Your task to perform on an android device: install app "Spotify: Music and Podcasts" Image 0: 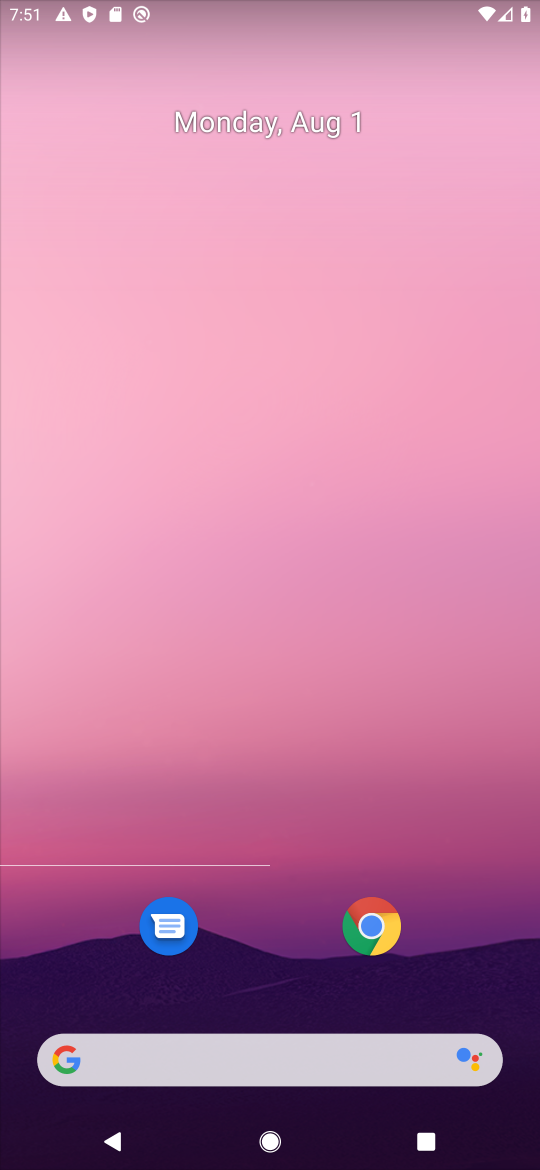
Step 0: press home button
Your task to perform on an android device: install app "Spotify: Music and Podcasts" Image 1: 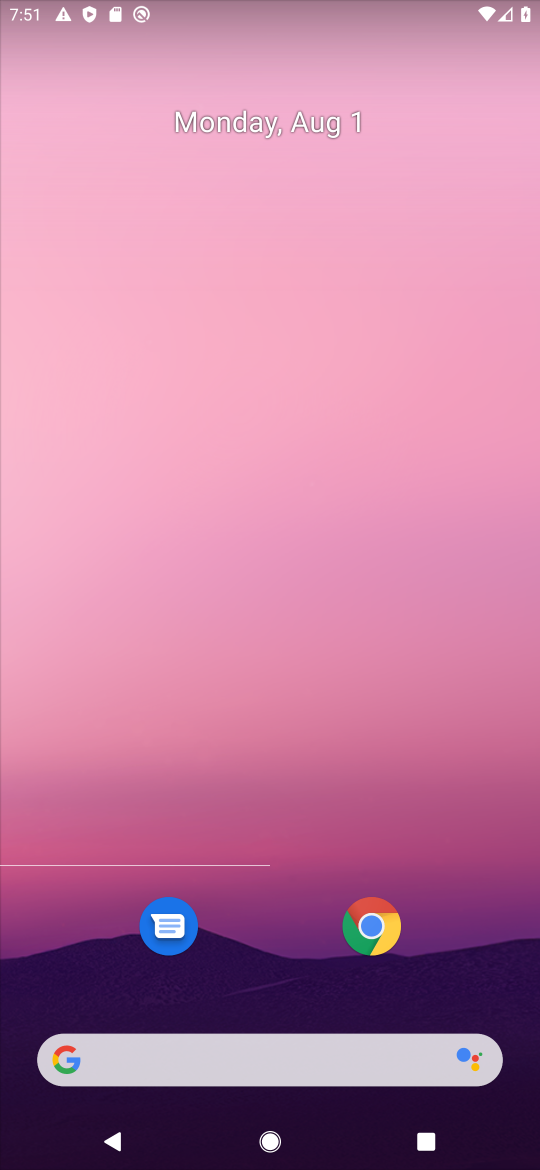
Step 1: click (427, 66)
Your task to perform on an android device: install app "Spotify: Music and Podcasts" Image 2: 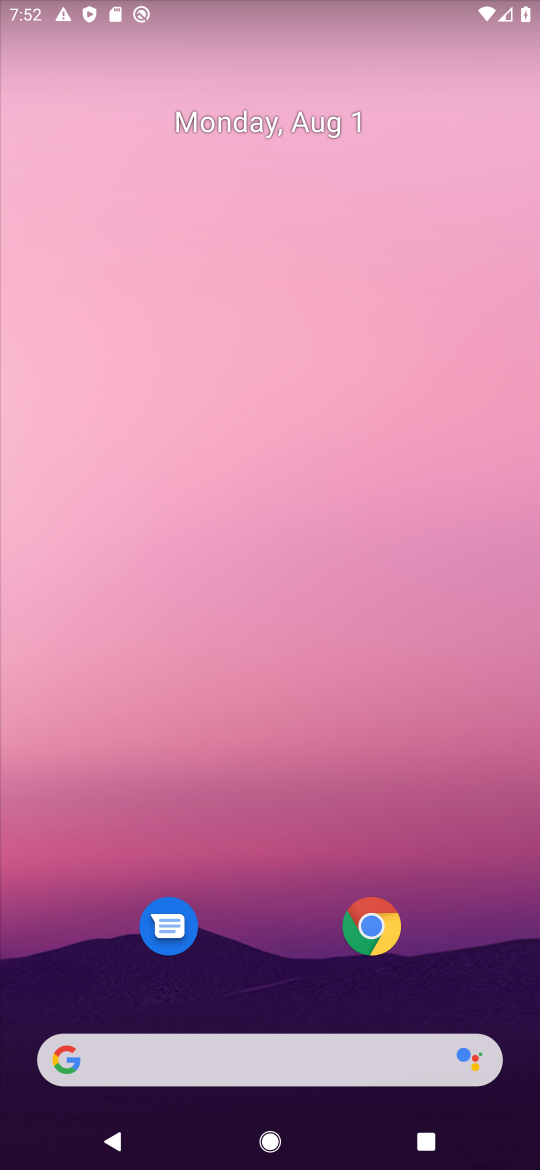
Step 2: drag from (270, 998) to (290, 114)
Your task to perform on an android device: install app "Spotify: Music and Podcasts" Image 3: 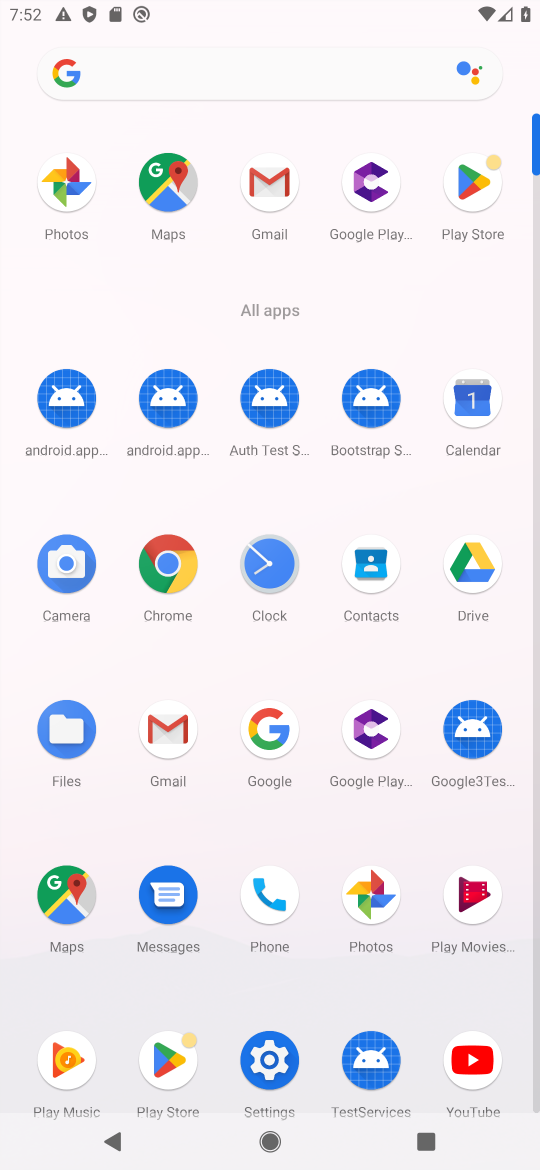
Step 3: click (467, 179)
Your task to perform on an android device: install app "Spotify: Music and Podcasts" Image 4: 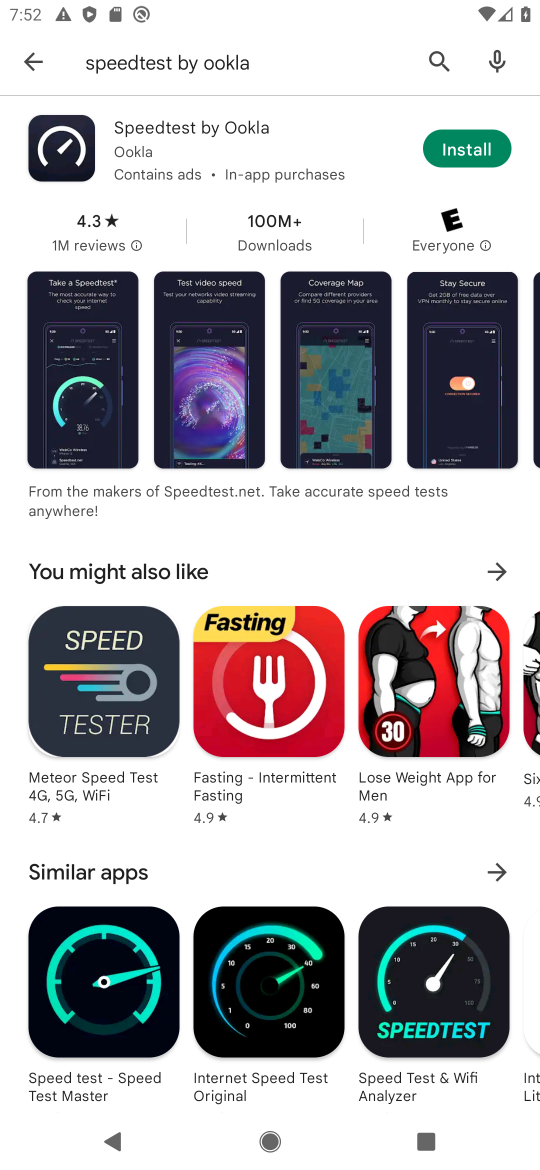
Step 4: click (434, 59)
Your task to perform on an android device: install app "Spotify: Music and Podcasts" Image 5: 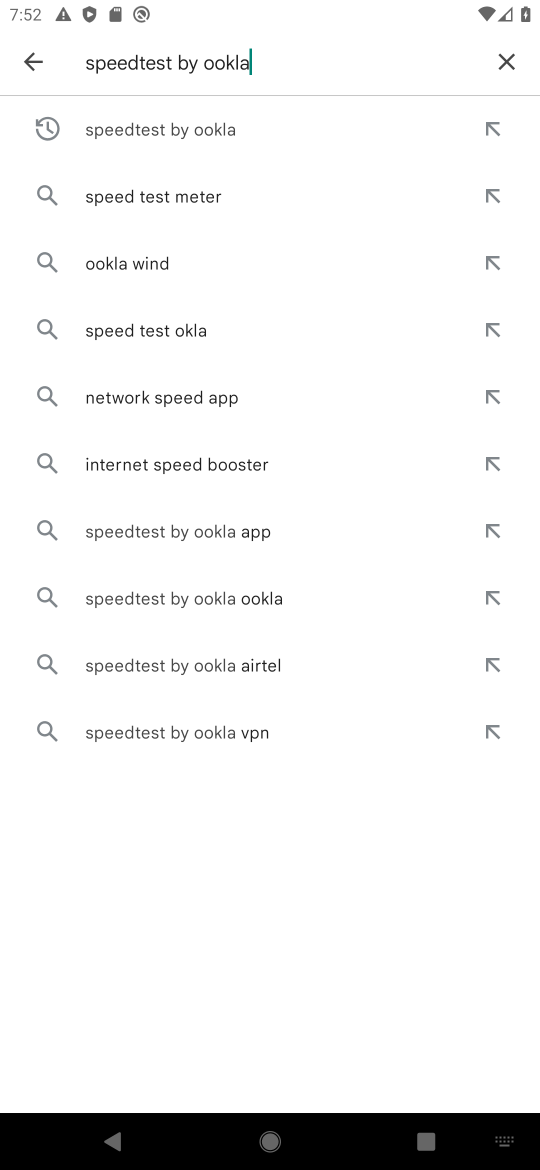
Step 5: click (525, 54)
Your task to perform on an android device: install app "Spotify: Music and Podcasts" Image 6: 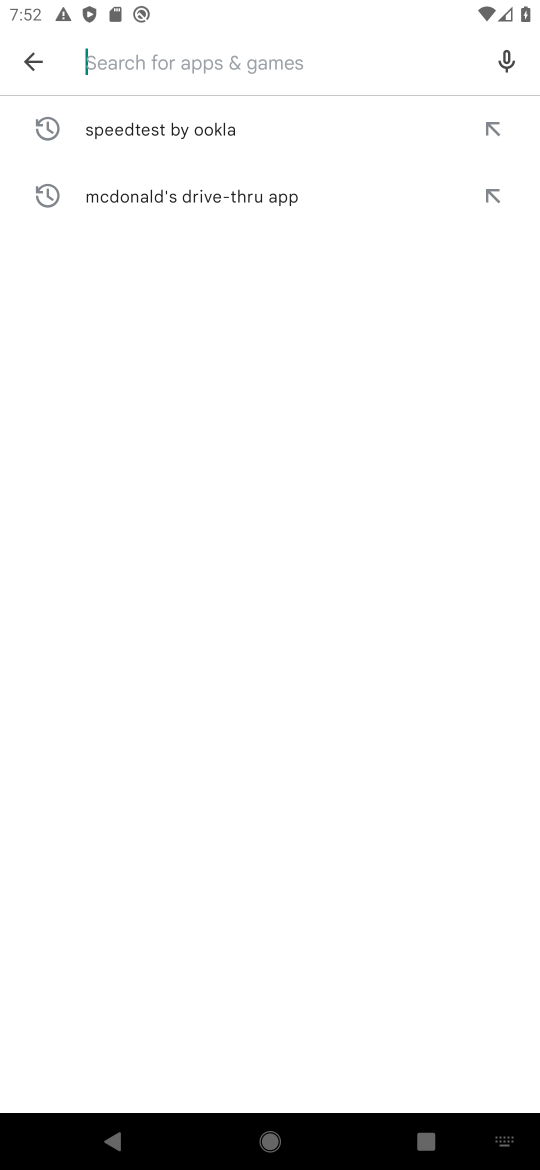
Step 6: click (505, 58)
Your task to perform on an android device: install app "Spotify: Music and Podcasts" Image 7: 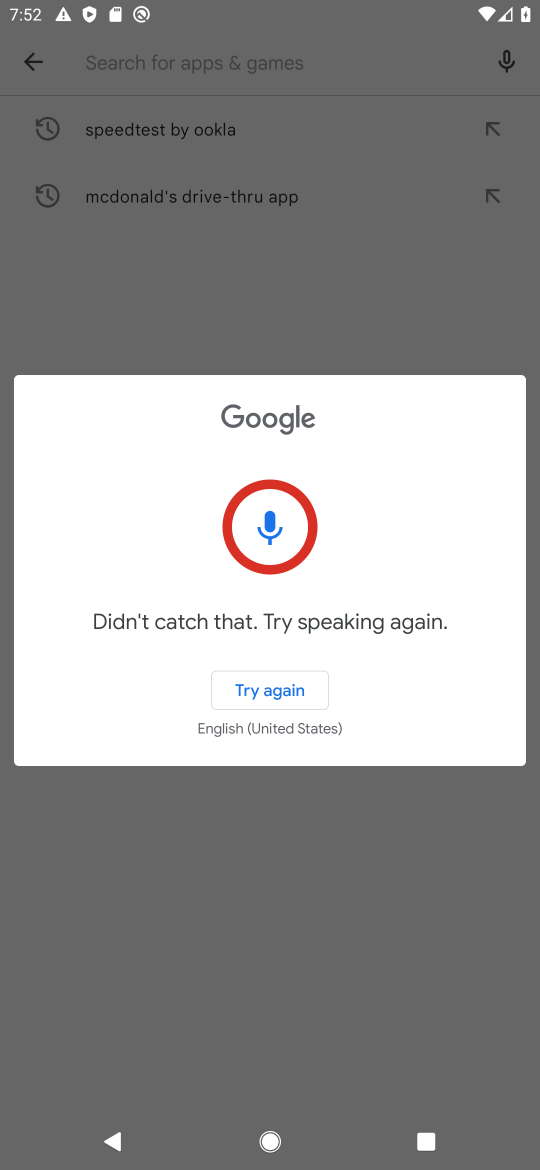
Step 7: click (298, 690)
Your task to perform on an android device: install app "Spotify: Music and Podcasts" Image 8: 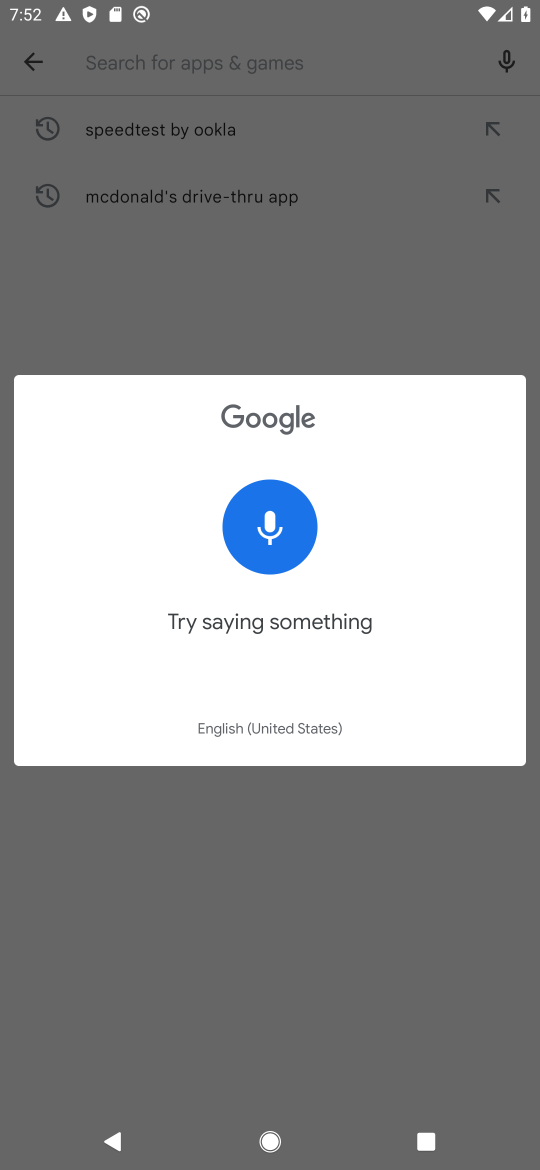
Step 8: click (211, 262)
Your task to perform on an android device: install app "Spotify: Music and Podcasts" Image 9: 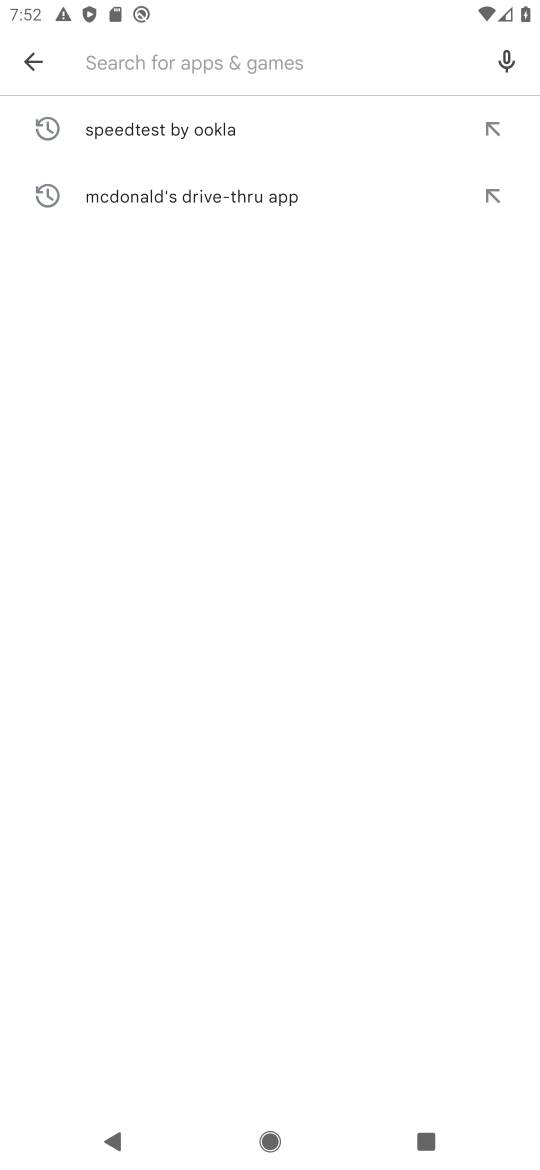
Step 9: click (161, 55)
Your task to perform on an android device: install app "Spotify: Music and Podcasts" Image 10: 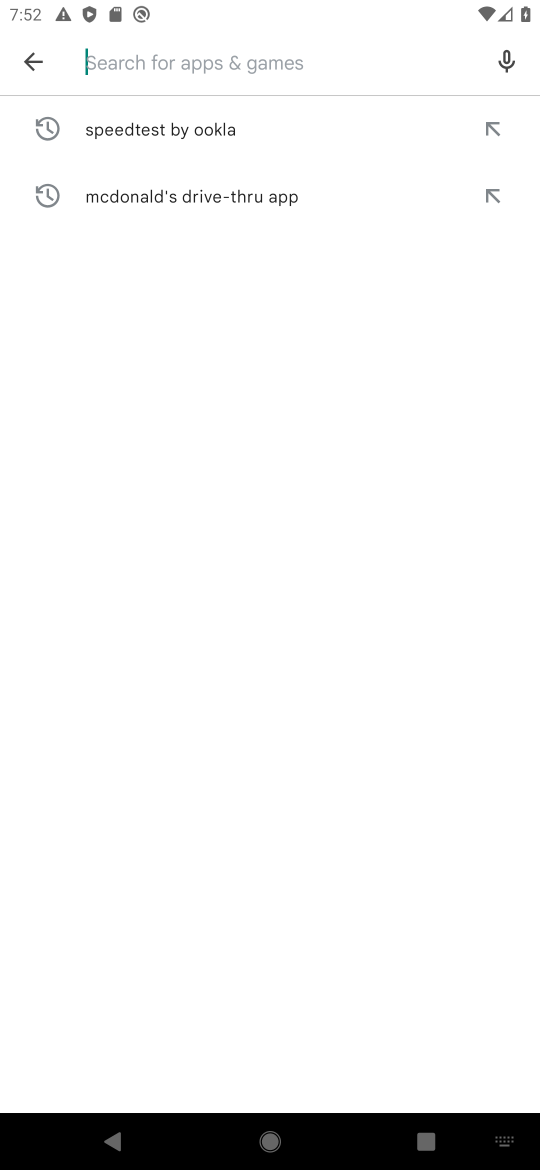
Step 10: click (161, 55)
Your task to perform on an android device: install app "Spotify: Music and Podcasts" Image 11: 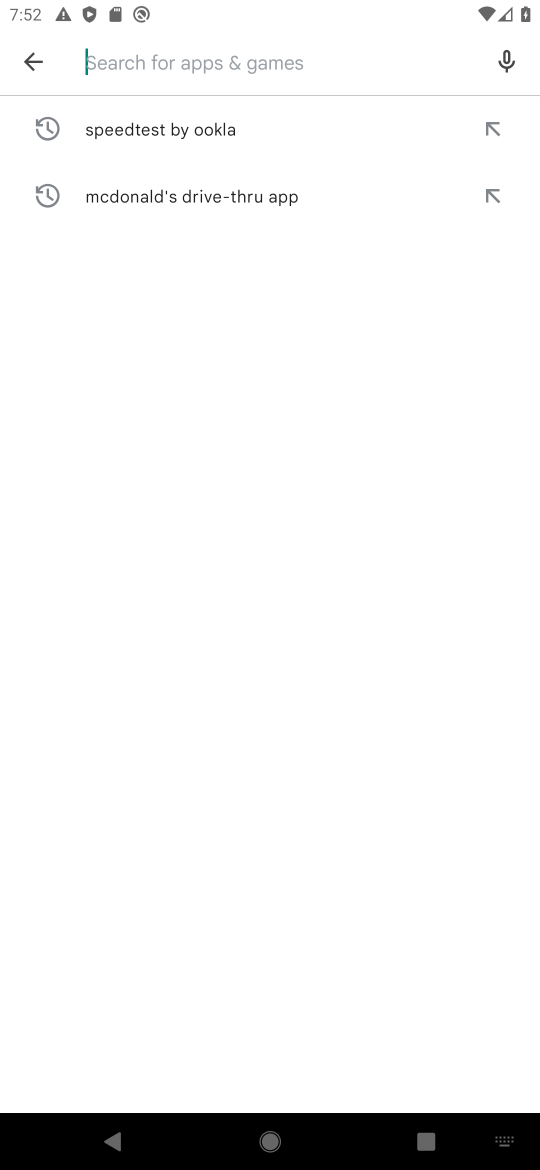
Step 11: type "Spotify: Music and Podcasts"
Your task to perform on an android device: install app "Spotify: Music and Podcasts" Image 12: 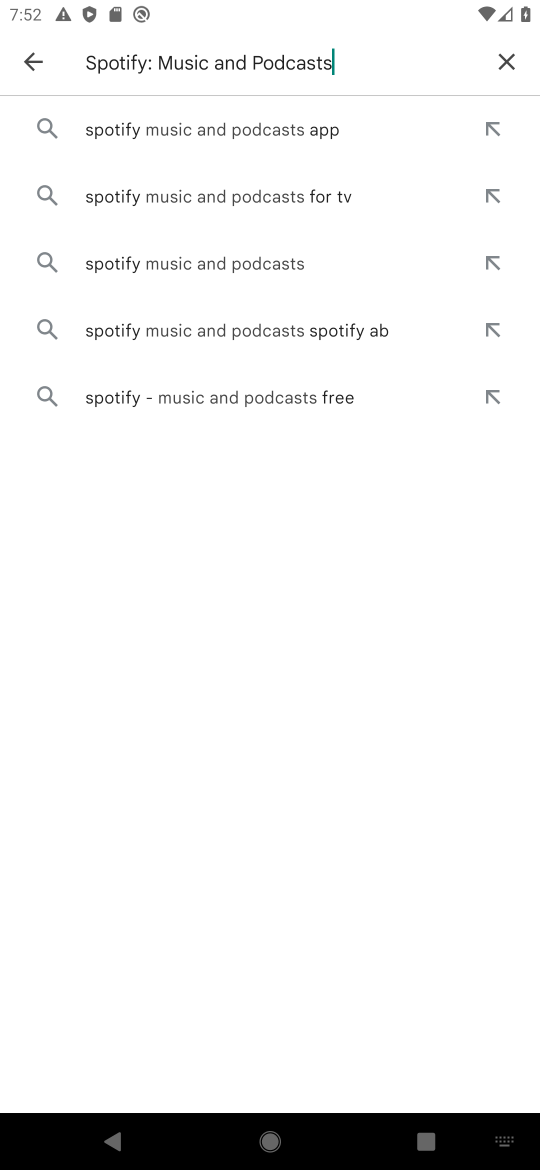
Step 12: click (234, 139)
Your task to perform on an android device: install app "Spotify: Music and Podcasts" Image 13: 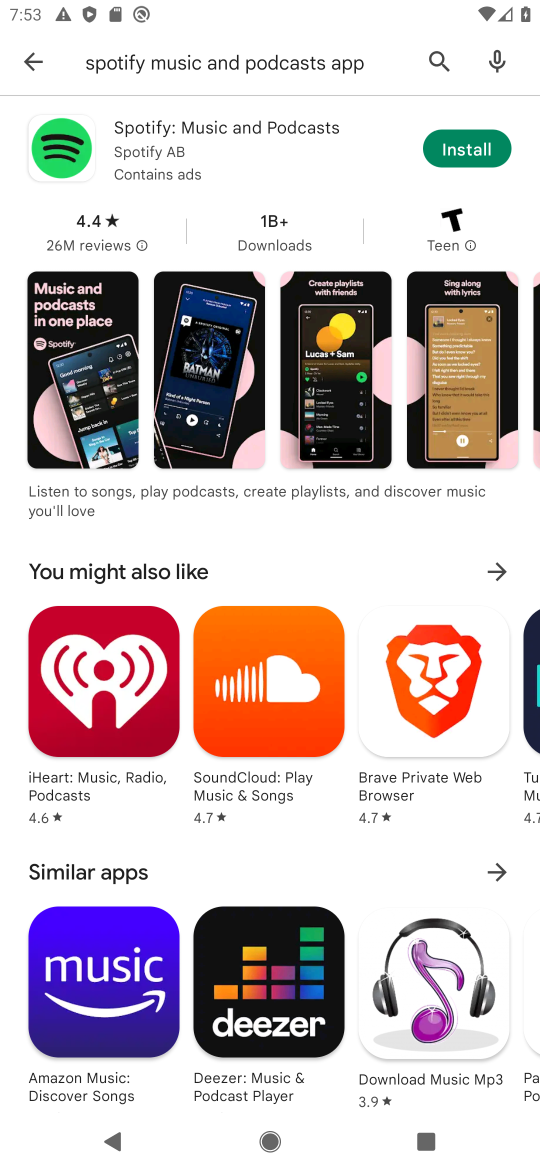
Step 13: click (465, 146)
Your task to perform on an android device: install app "Spotify: Music and Podcasts" Image 14: 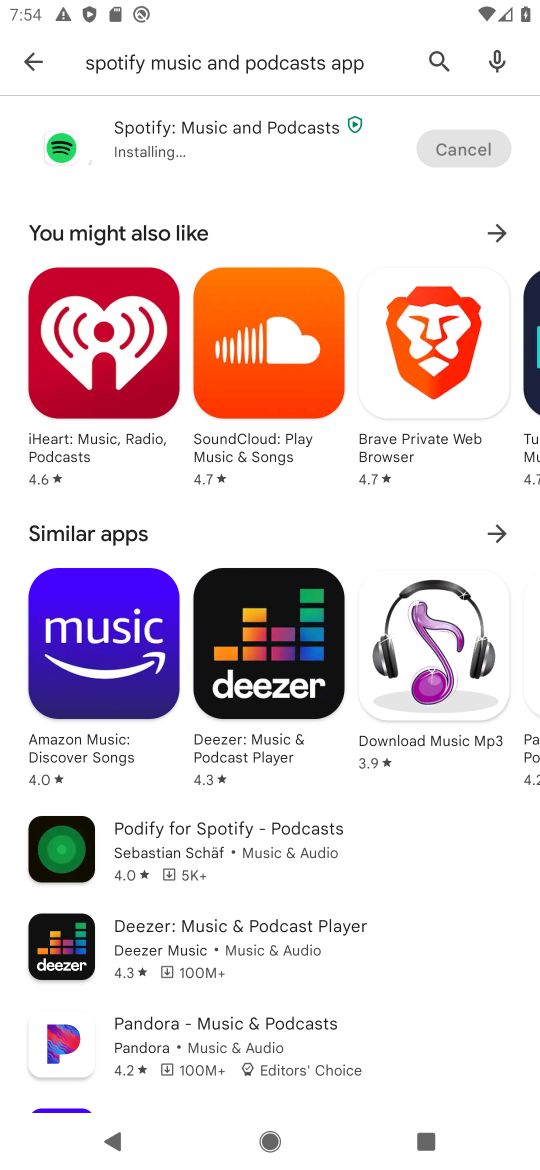
Step 14: click (287, 141)
Your task to perform on an android device: install app "Spotify: Music and Podcasts" Image 15: 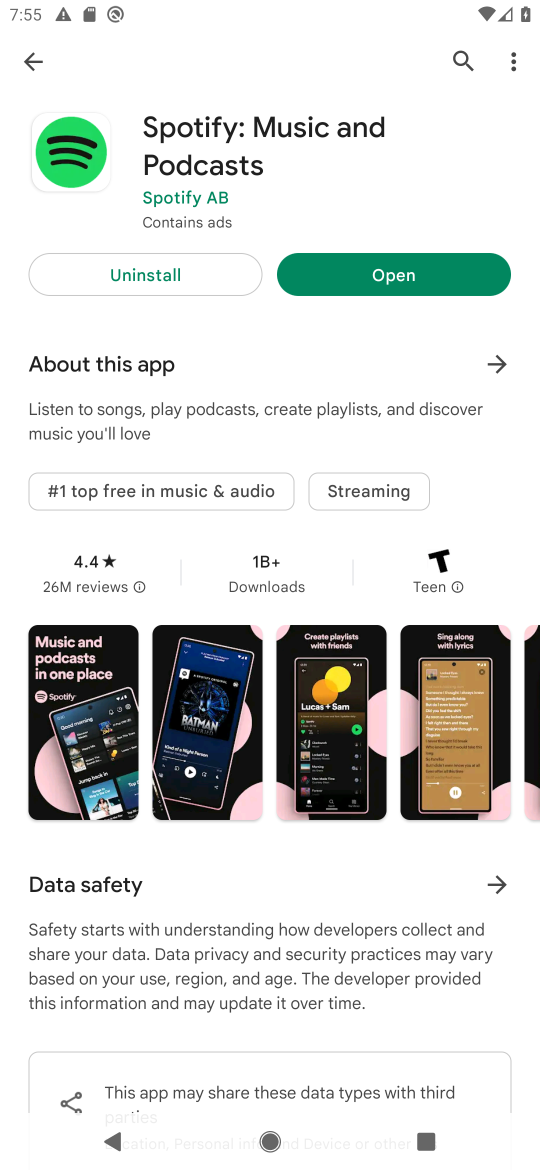
Step 15: click (380, 278)
Your task to perform on an android device: install app "Spotify: Music and Podcasts" Image 16: 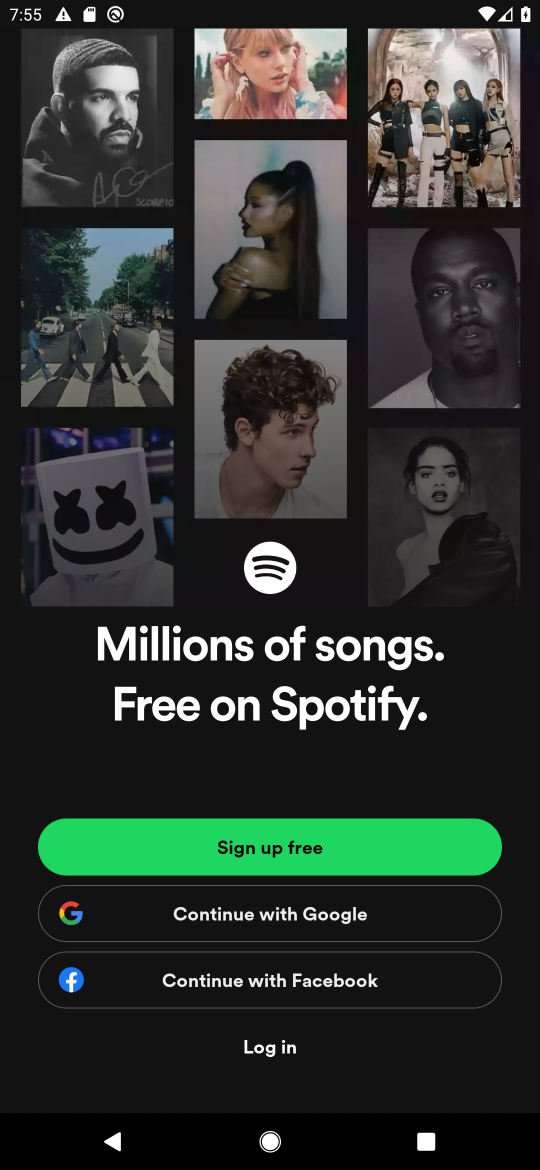
Step 16: click (290, 916)
Your task to perform on an android device: install app "Spotify: Music and Podcasts" Image 17: 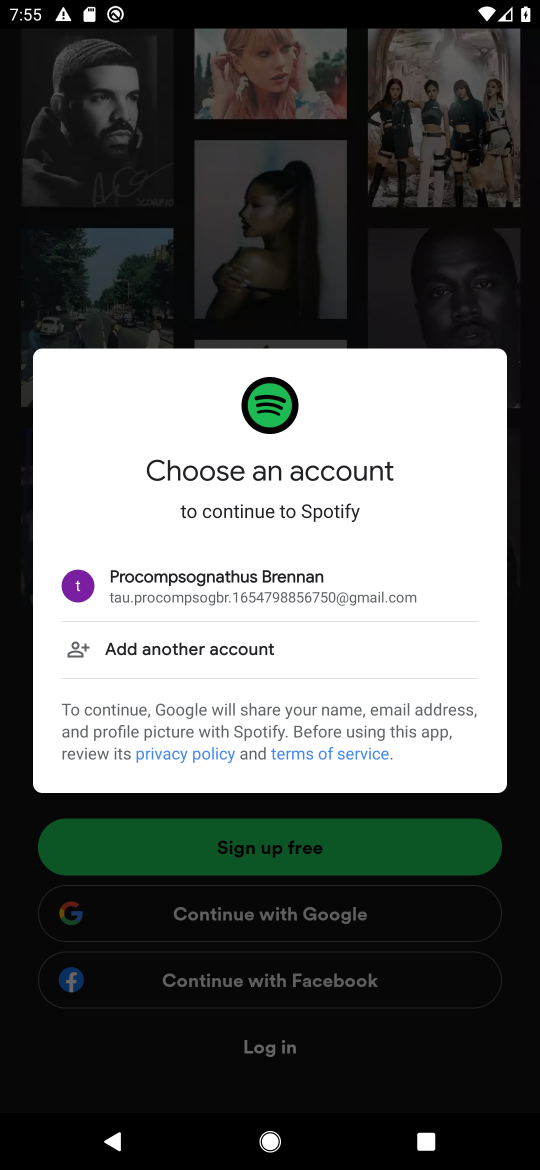
Step 17: click (199, 587)
Your task to perform on an android device: install app "Spotify: Music and Podcasts" Image 18: 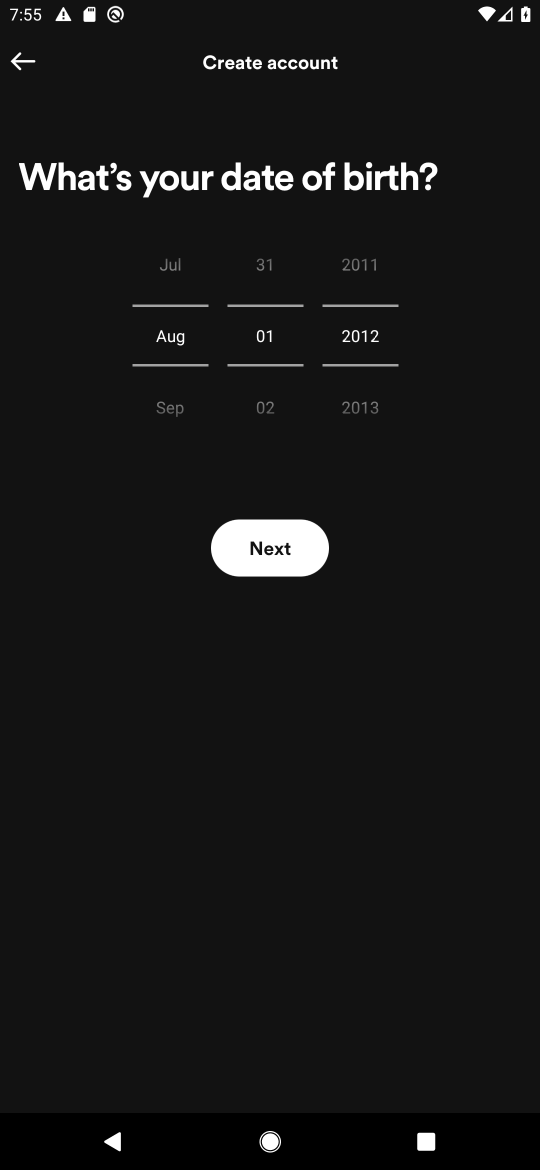
Step 18: click (283, 551)
Your task to perform on an android device: install app "Spotify: Music and Podcasts" Image 19: 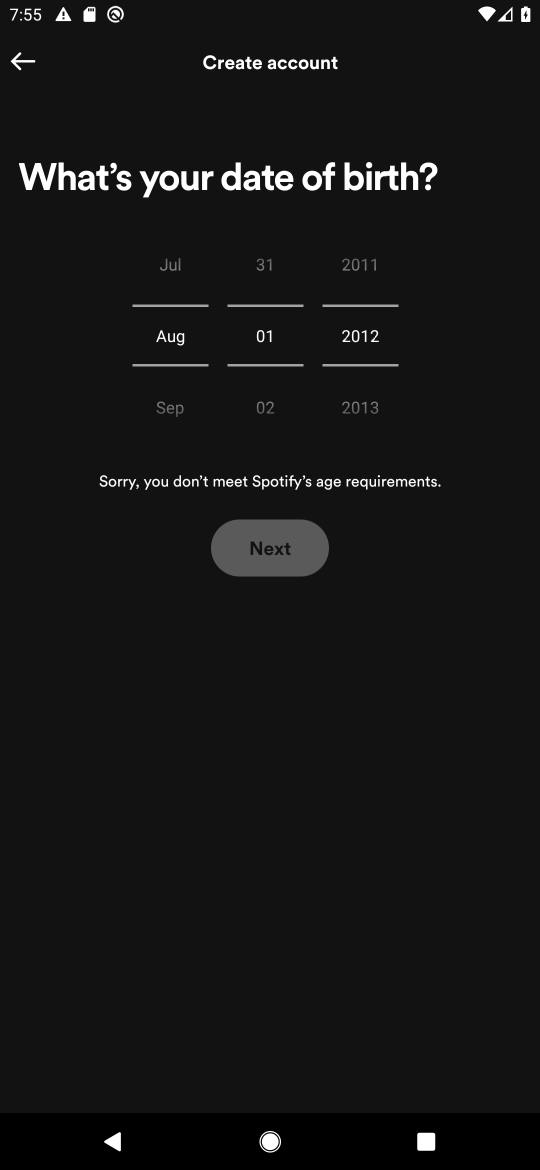
Step 19: drag from (361, 330) to (370, 468)
Your task to perform on an android device: install app "Spotify: Music and Podcasts" Image 20: 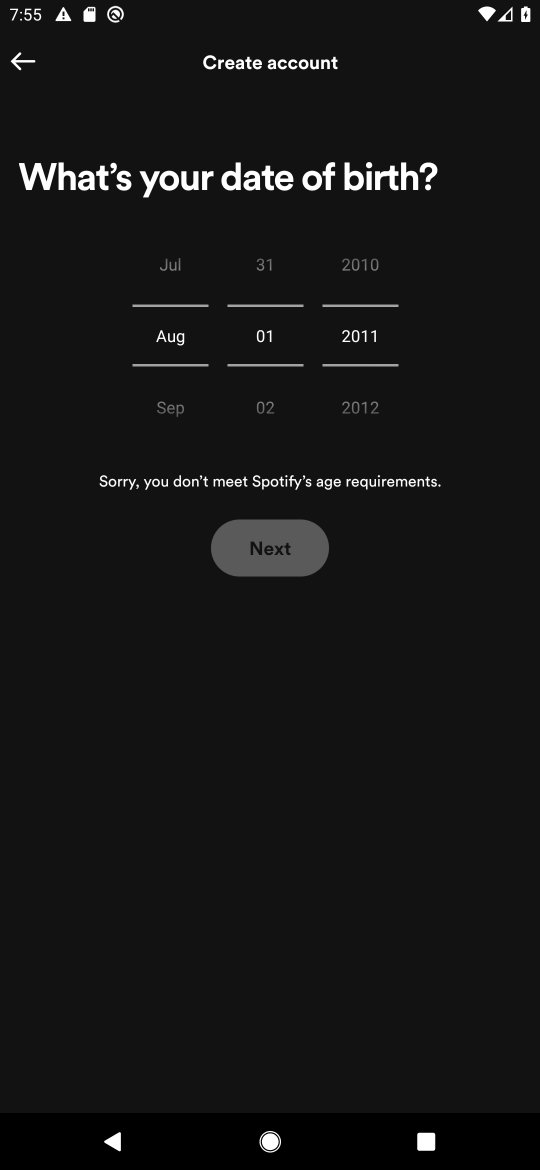
Step 20: drag from (356, 274) to (369, 422)
Your task to perform on an android device: install app "Spotify: Music and Podcasts" Image 21: 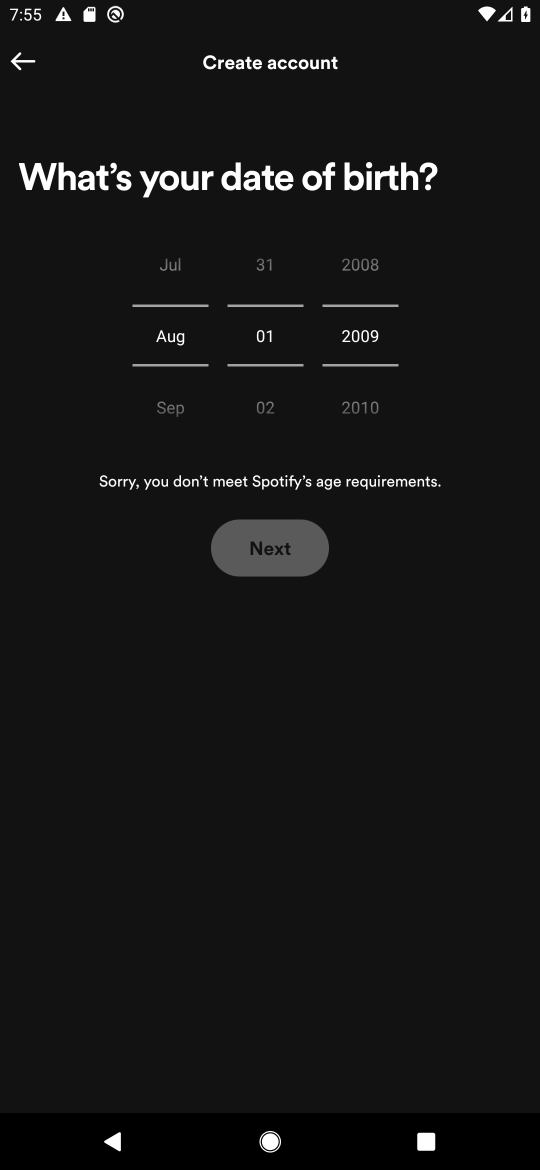
Step 21: drag from (361, 279) to (372, 440)
Your task to perform on an android device: install app "Spotify: Music and Podcasts" Image 22: 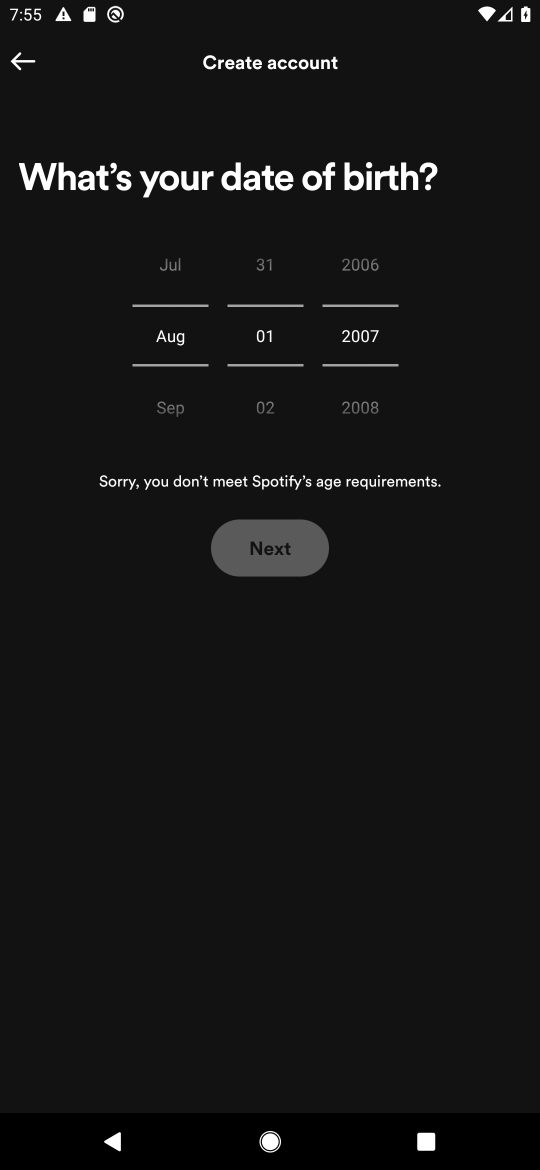
Step 22: drag from (352, 268) to (373, 567)
Your task to perform on an android device: install app "Spotify: Music and Podcasts" Image 23: 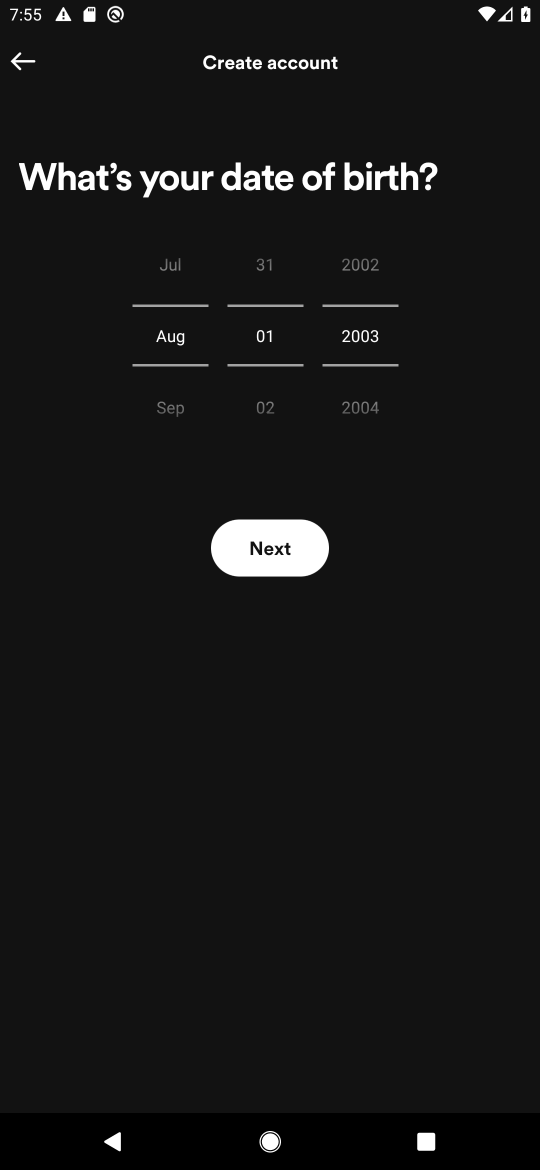
Step 23: click (274, 538)
Your task to perform on an android device: install app "Spotify: Music and Podcasts" Image 24: 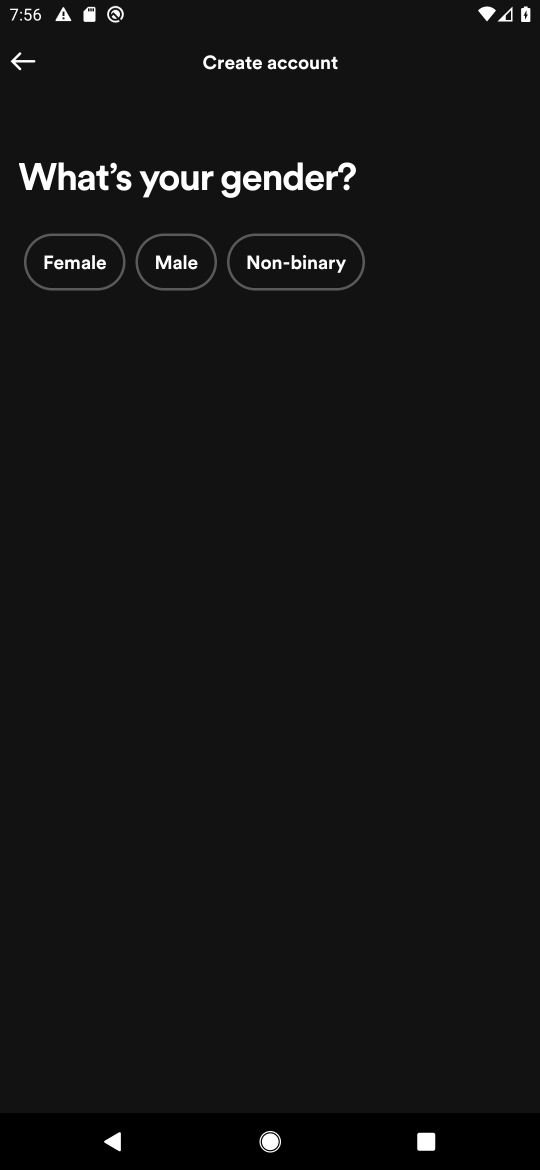
Step 24: click (161, 260)
Your task to perform on an android device: install app "Spotify: Music and Podcasts" Image 25: 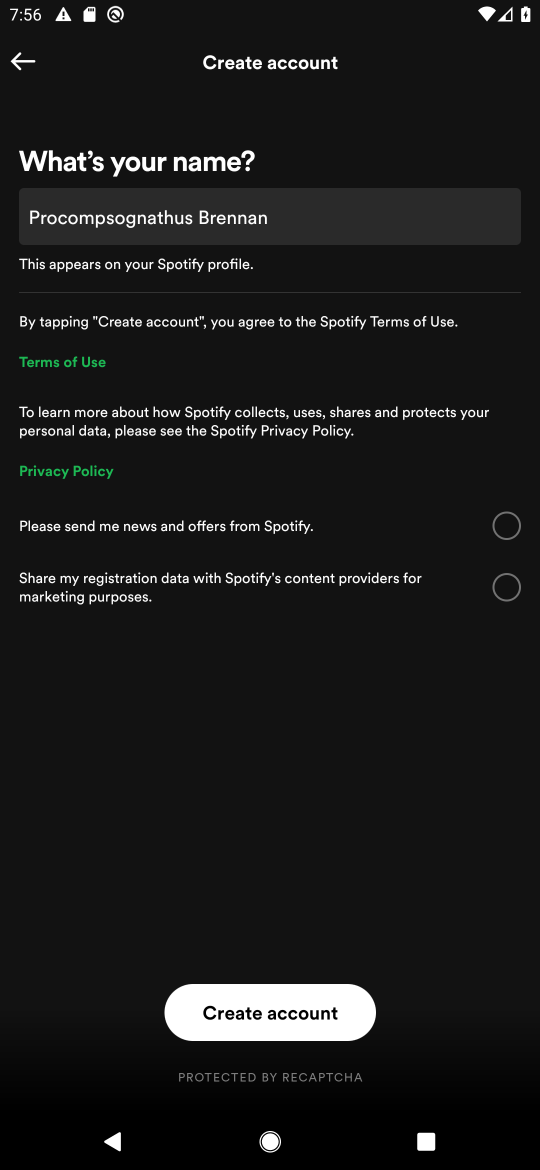
Step 25: click (300, 1010)
Your task to perform on an android device: install app "Spotify: Music and Podcasts" Image 26: 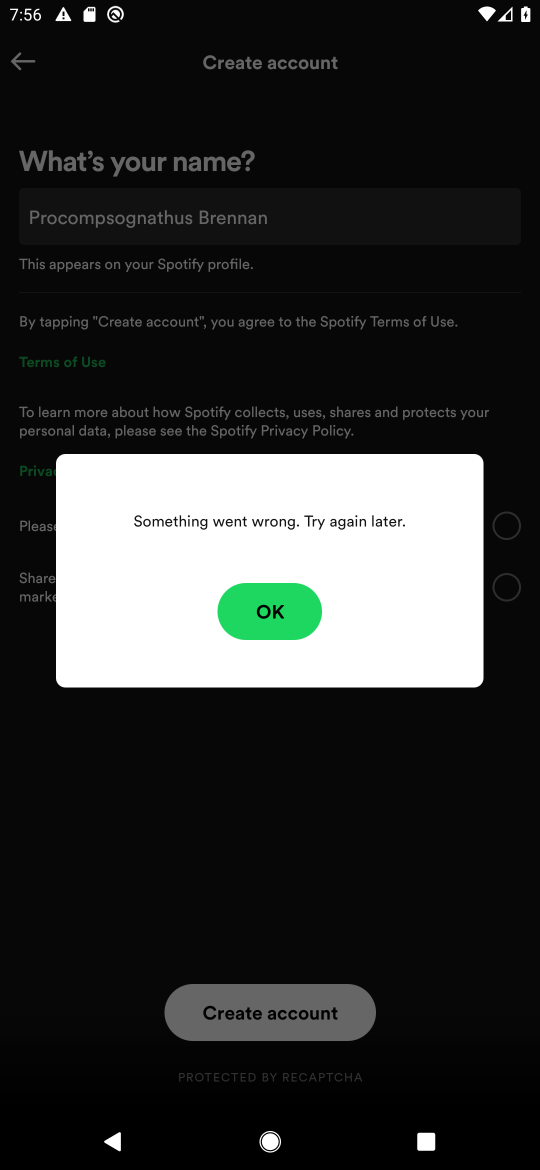
Step 26: click (268, 623)
Your task to perform on an android device: install app "Spotify: Music and Podcasts" Image 27: 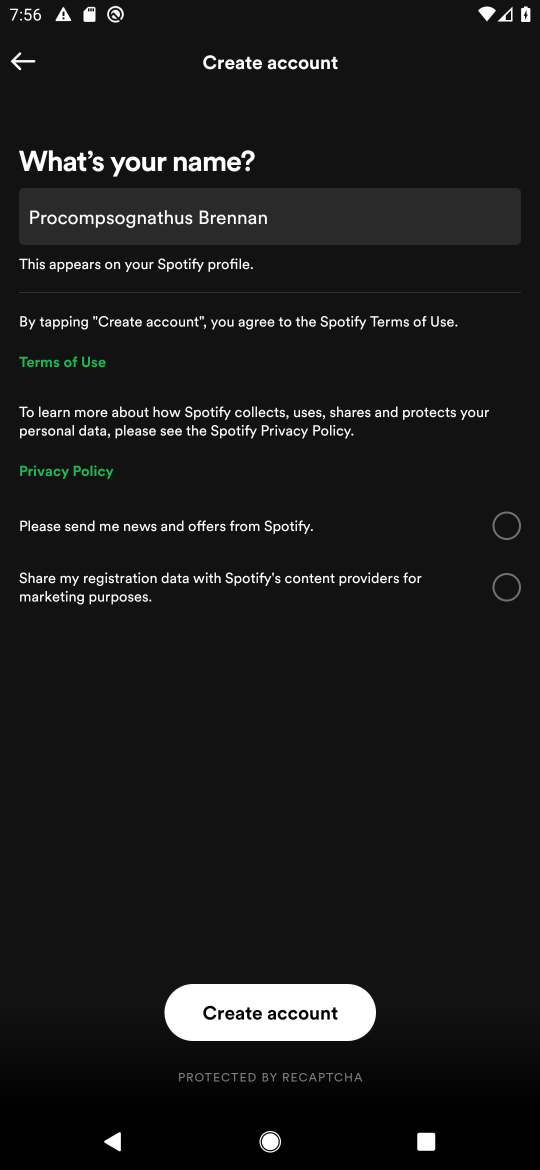
Step 27: task complete